Your task to perform on an android device: toggle improve location accuracy Image 0: 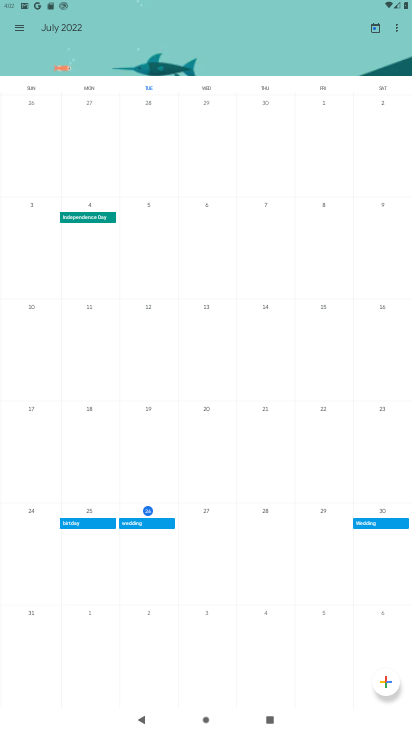
Step 0: task complete